Your task to perform on an android device: turn on location history Image 0: 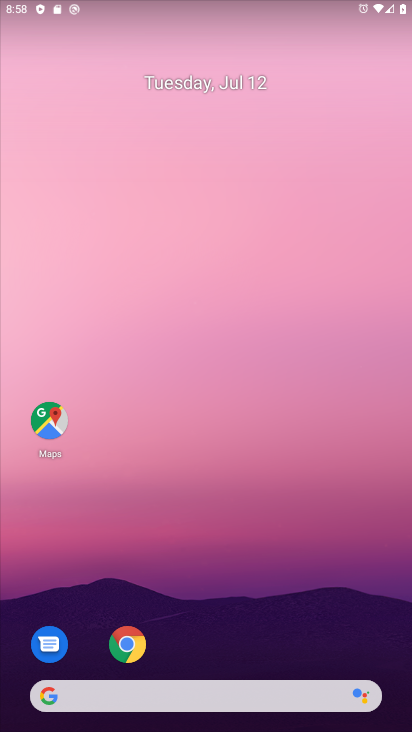
Step 0: drag from (29, 690) to (172, 239)
Your task to perform on an android device: turn on location history Image 1: 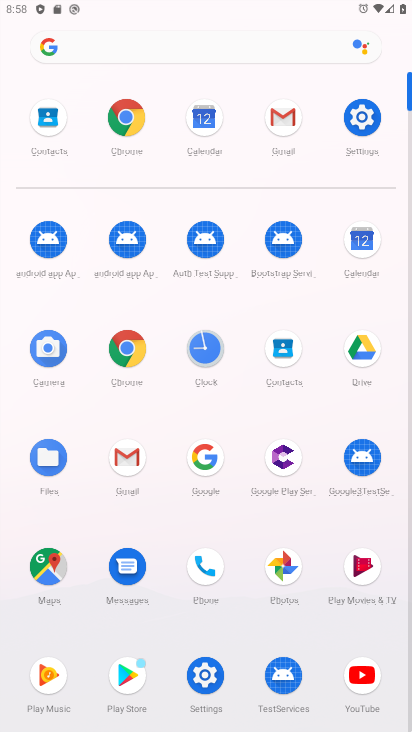
Step 1: click (204, 681)
Your task to perform on an android device: turn on location history Image 2: 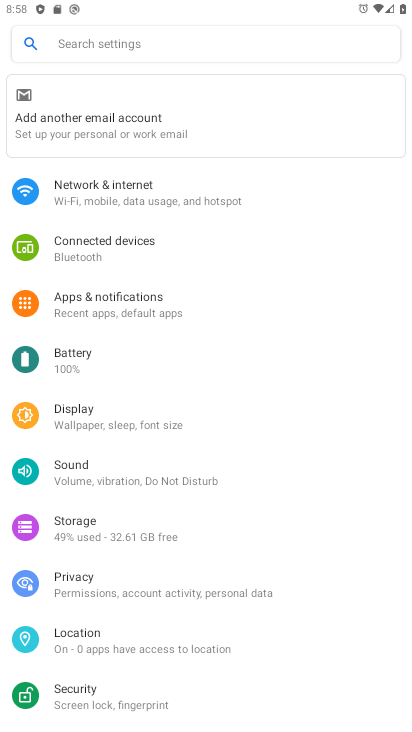
Step 2: click (89, 638)
Your task to perform on an android device: turn on location history Image 3: 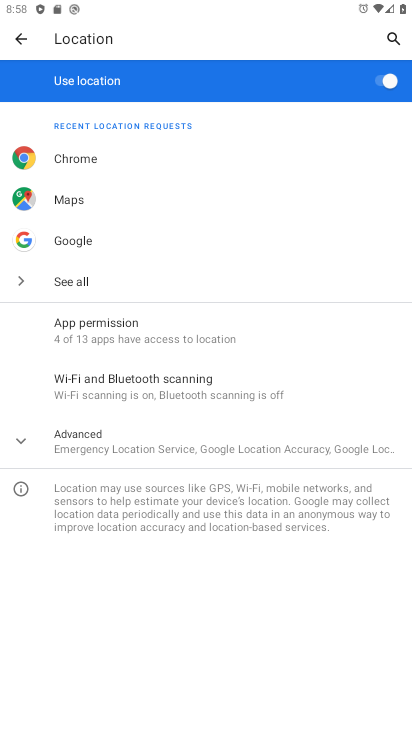
Step 3: click (81, 443)
Your task to perform on an android device: turn on location history Image 4: 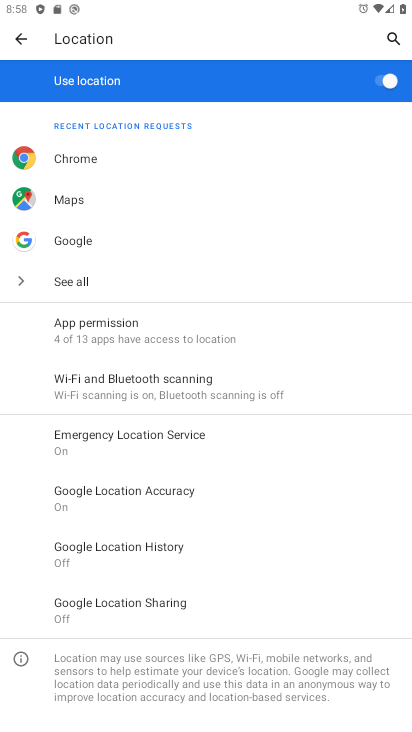
Step 4: click (90, 556)
Your task to perform on an android device: turn on location history Image 5: 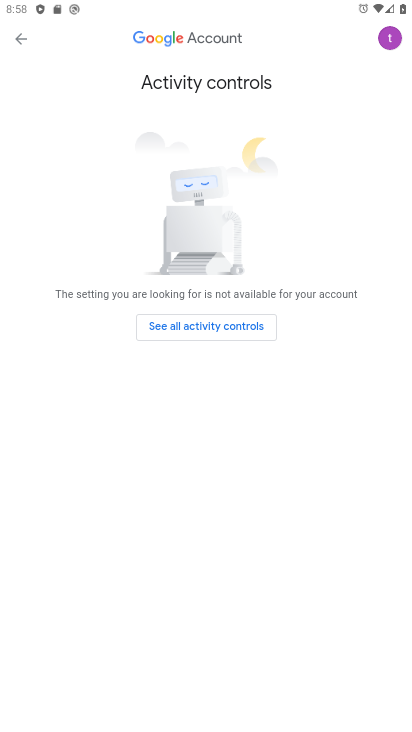
Step 5: click (220, 312)
Your task to perform on an android device: turn on location history Image 6: 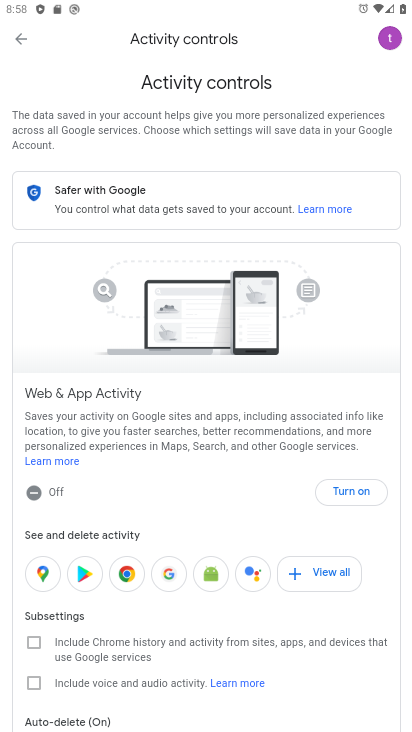
Step 6: task complete